Your task to perform on an android device: Check the weather Image 0: 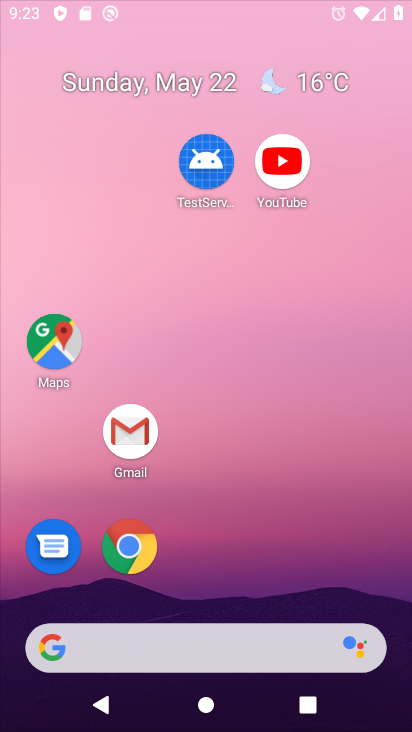
Step 0: drag from (297, 685) to (274, 66)
Your task to perform on an android device: Check the weather Image 1: 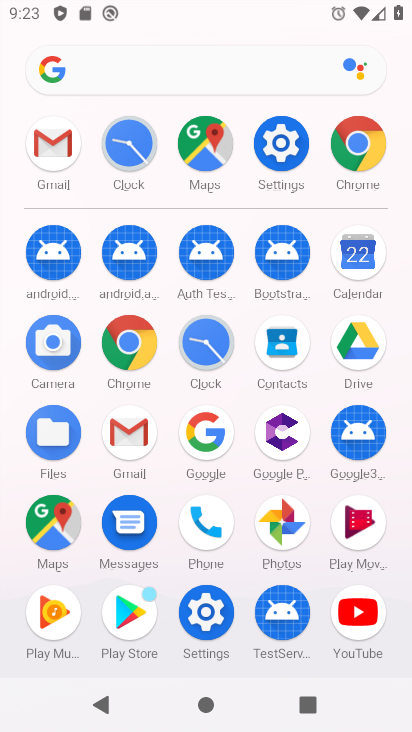
Step 1: press back button
Your task to perform on an android device: Check the weather Image 2: 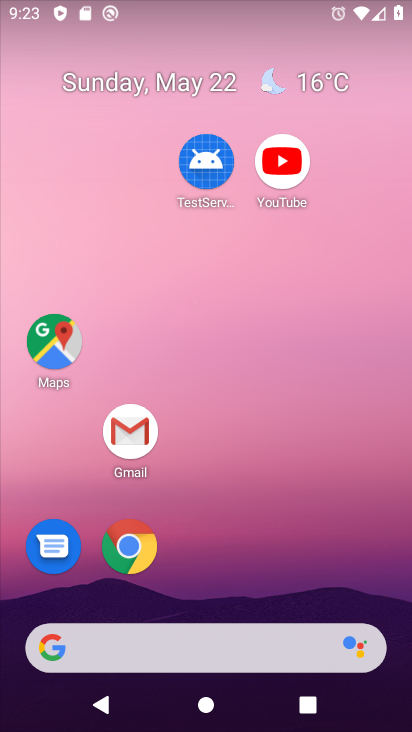
Step 2: drag from (1, 156) to (374, 464)
Your task to perform on an android device: Check the weather Image 3: 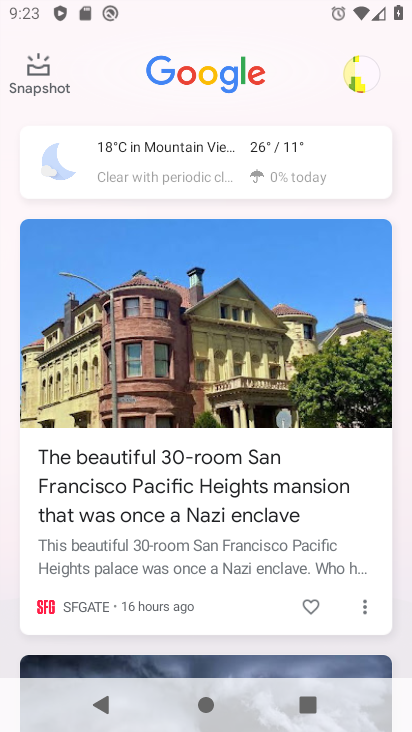
Step 3: click (150, 156)
Your task to perform on an android device: Check the weather Image 4: 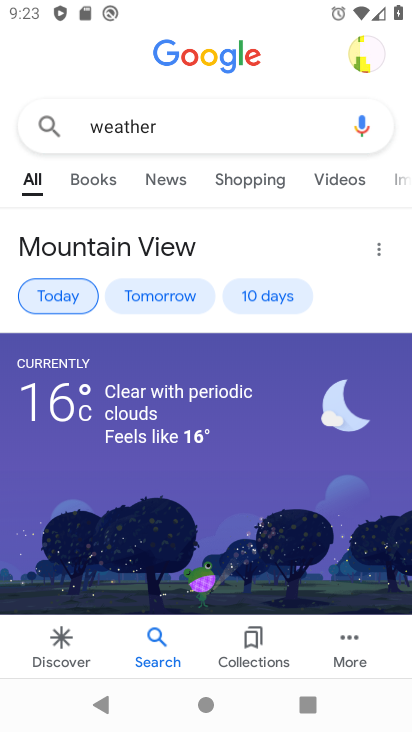
Step 4: click (154, 297)
Your task to perform on an android device: Check the weather Image 5: 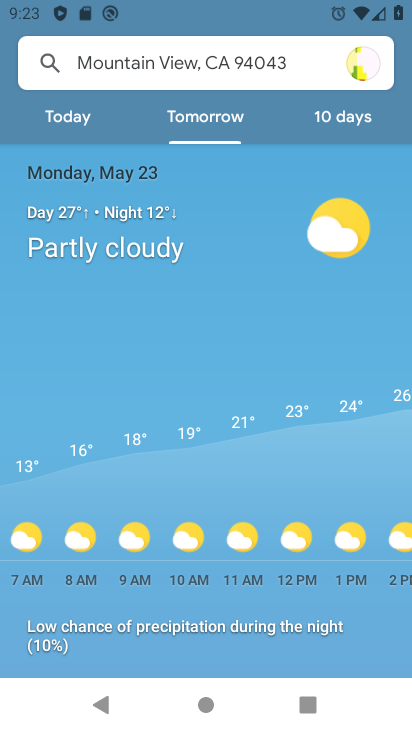
Step 5: drag from (205, 552) to (200, 17)
Your task to perform on an android device: Check the weather Image 6: 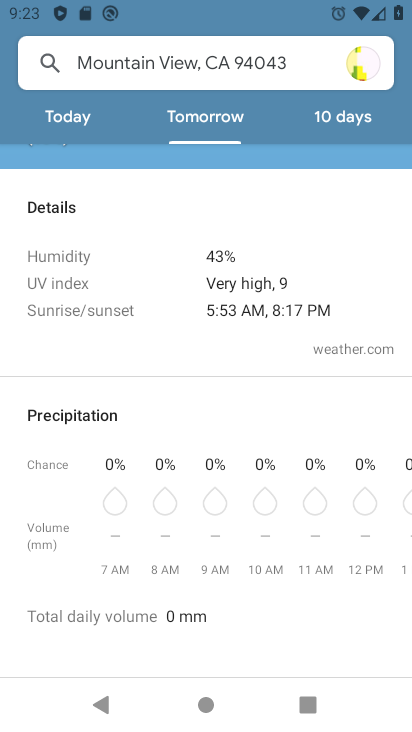
Step 6: drag from (193, 418) to (225, 125)
Your task to perform on an android device: Check the weather Image 7: 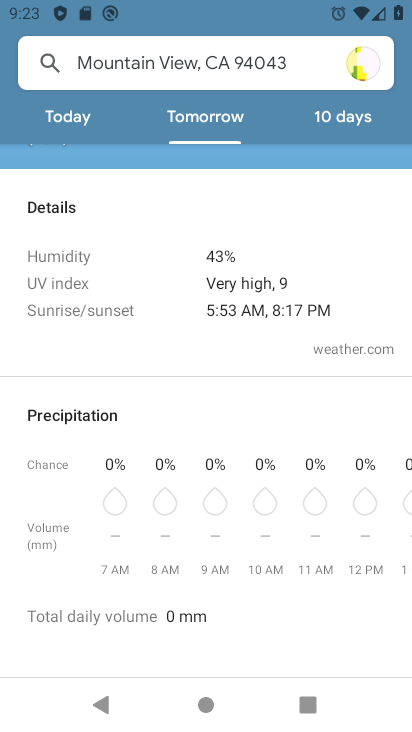
Step 7: drag from (253, 524) to (250, 177)
Your task to perform on an android device: Check the weather Image 8: 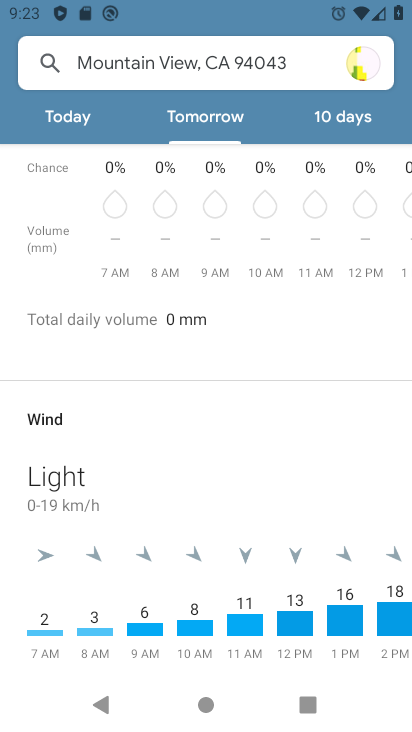
Step 8: drag from (233, 482) to (206, 171)
Your task to perform on an android device: Check the weather Image 9: 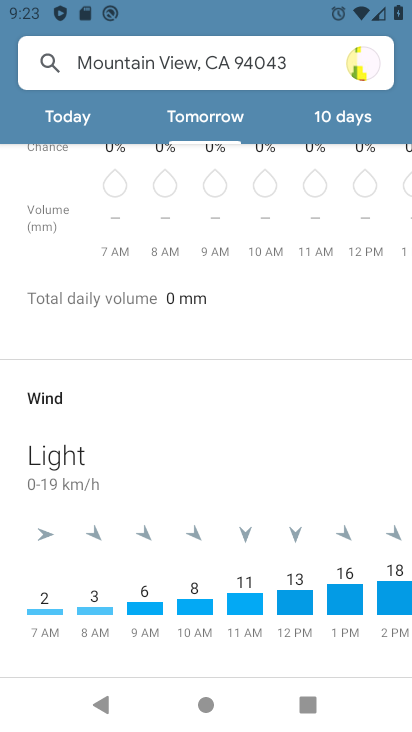
Step 9: drag from (151, 212) to (150, 482)
Your task to perform on an android device: Check the weather Image 10: 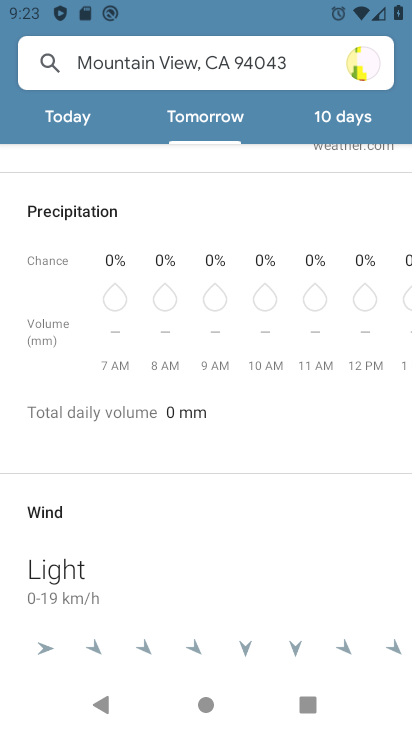
Step 10: drag from (168, 335) to (193, 505)
Your task to perform on an android device: Check the weather Image 11: 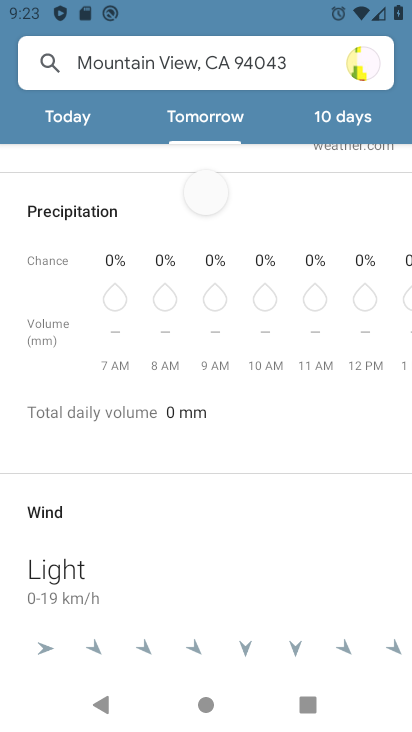
Step 11: drag from (181, 468) to (188, 619)
Your task to perform on an android device: Check the weather Image 12: 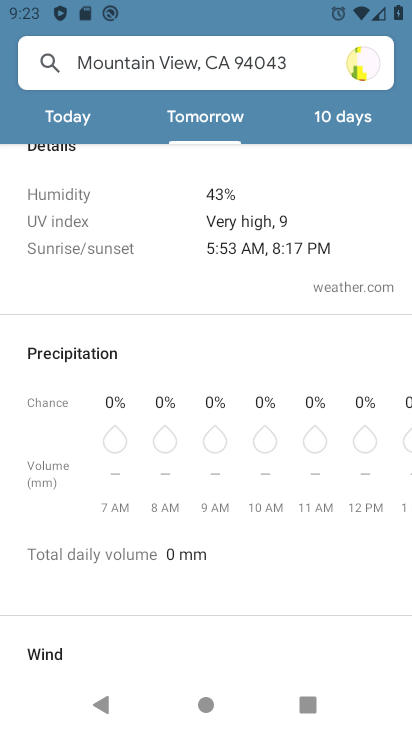
Step 12: click (208, 493)
Your task to perform on an android device: Check the weather Image 13: 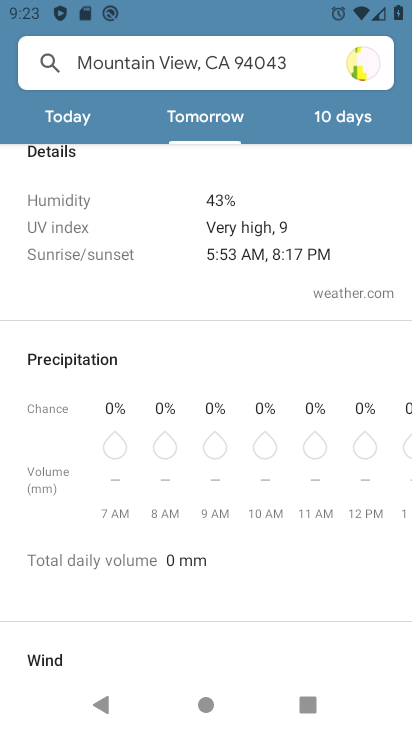
Step 13: task complete